Your task to perform on an android device: allow cookies in the chrome app Image 0: 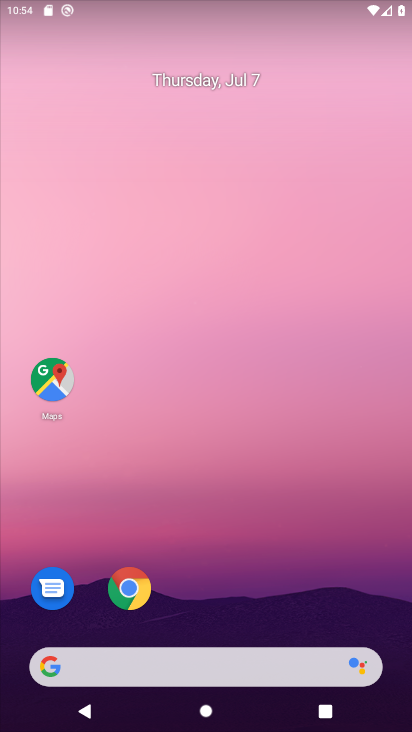
Step 0: click (132, 592)
Your task to perform on an android device: allow cookies in the chrome app Image 1: 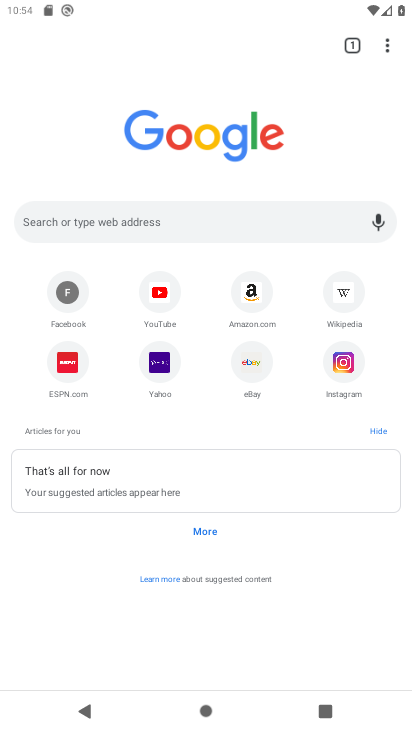
Step 1: drag from (386, 43) to (251, 381)
Your task to perform on an android device: allow cookies in the chrome app Image 2: 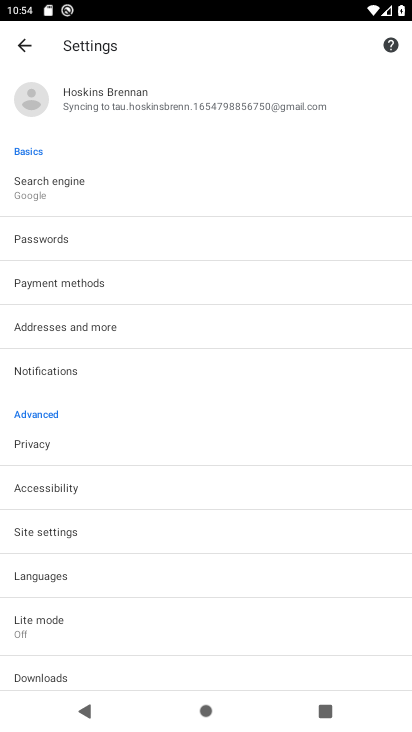
Step 2: click (77, 538)
Your task to perform on an android device: allow cookies in the chrome app Image 3: 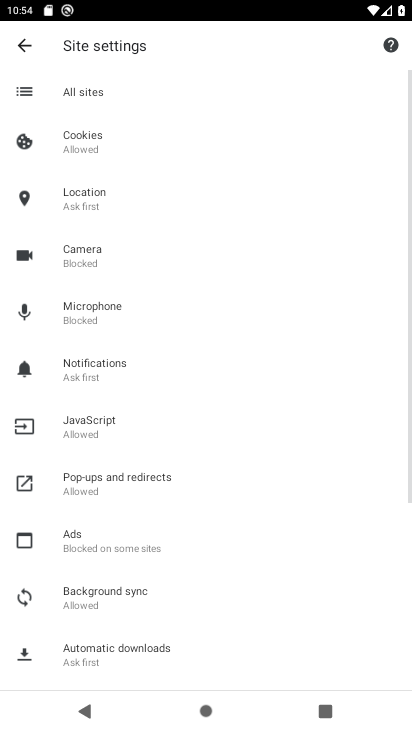
Step 3: click (79, 139)
Your task to perform on an android device: allow cookies in the chrome app Image 4: 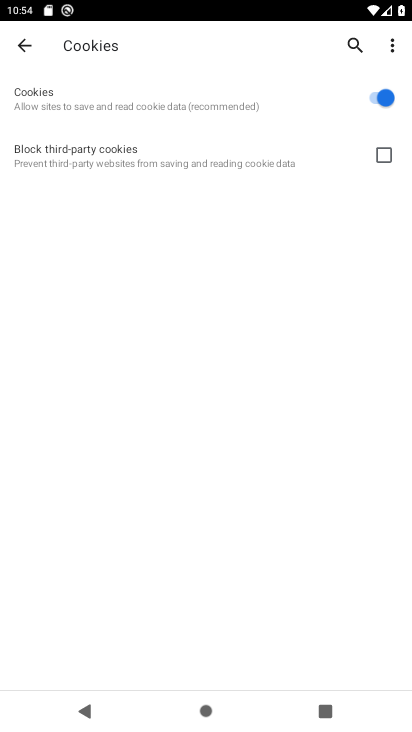
Step 4: task complete